Your task to perform on an android device: Clear the cart on newegg.com. Add "bose soundlink" to the cart on newegg.com Image 0: 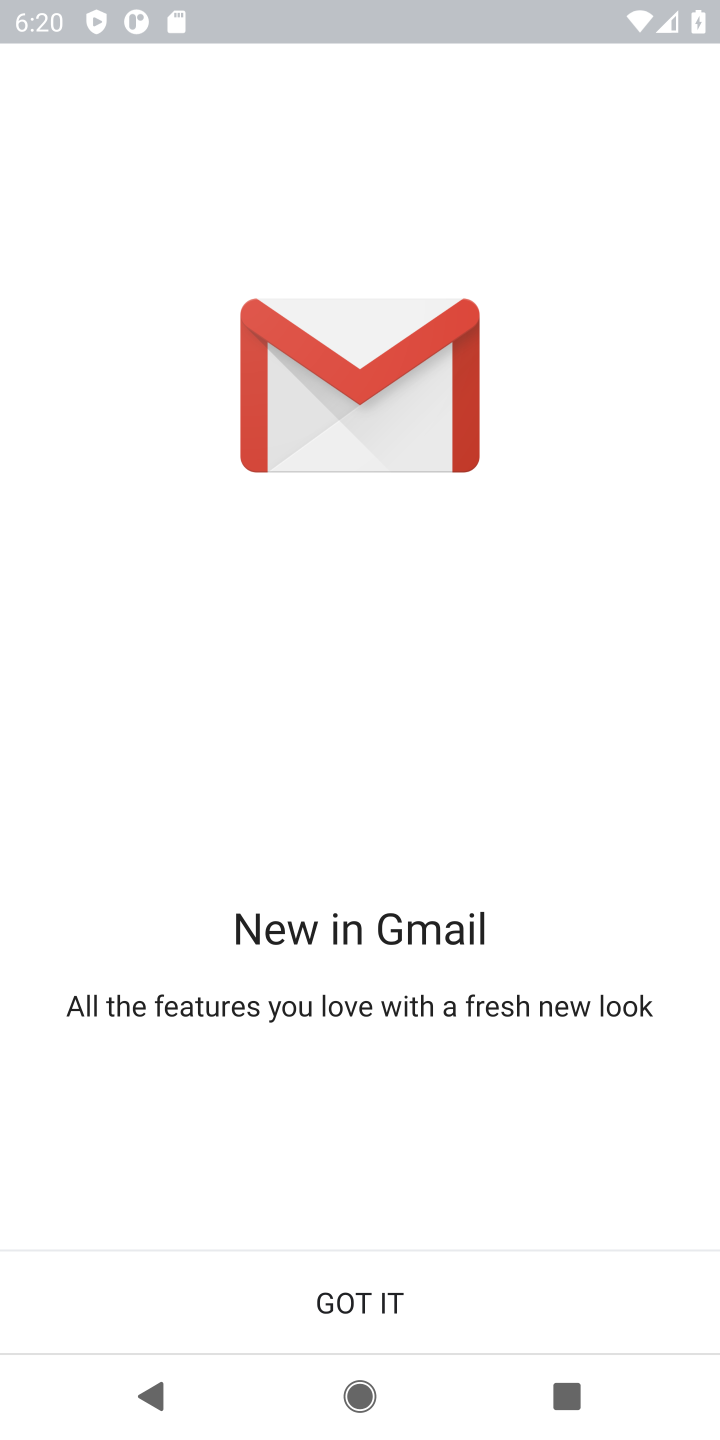
Step 0: press home button
Your task to perform on an android device: Clear the cart on newegg.com. Add "bose soundlink" to the cart on newegg.com Image 1: 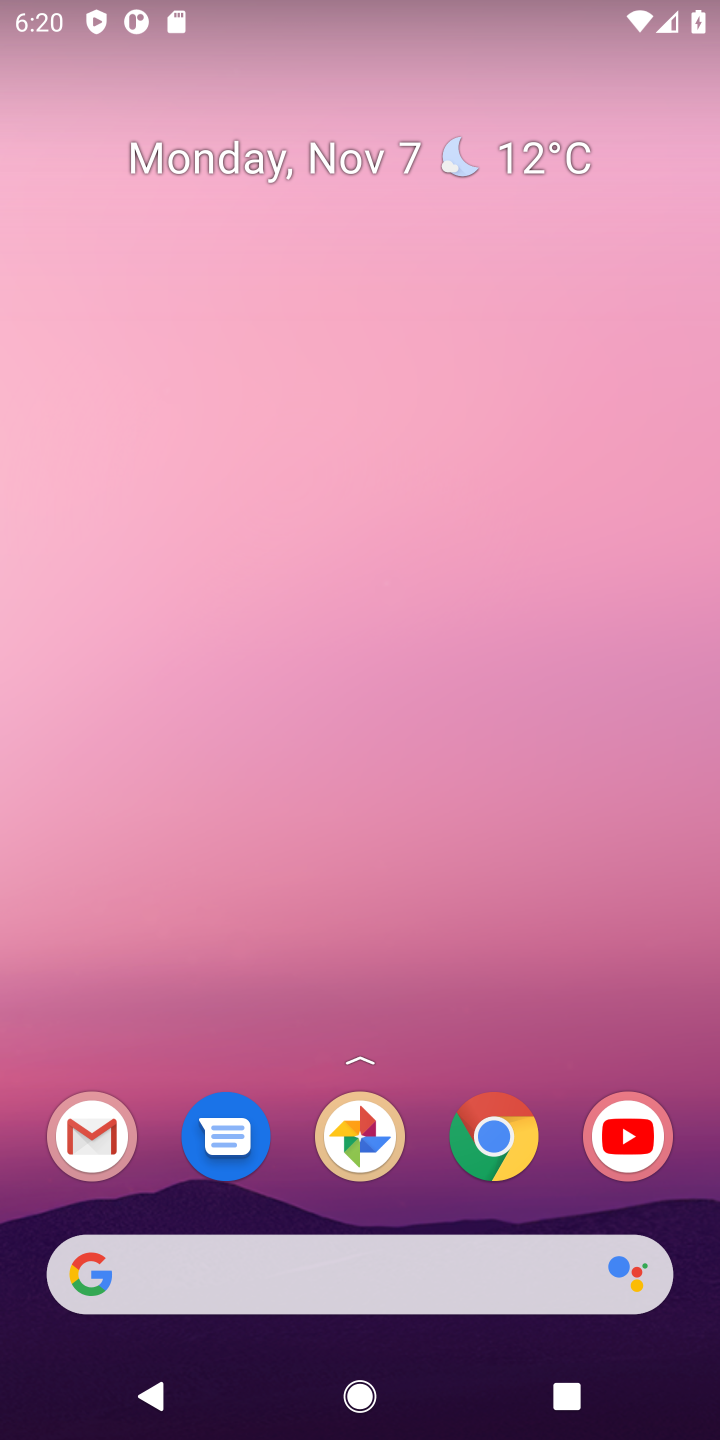
Step 1: click (82, 1269)
Your task to perform on an android device: Clear the cart on newegg.com. Add "bose soundlink" to the cart on newegg.com Image 2: 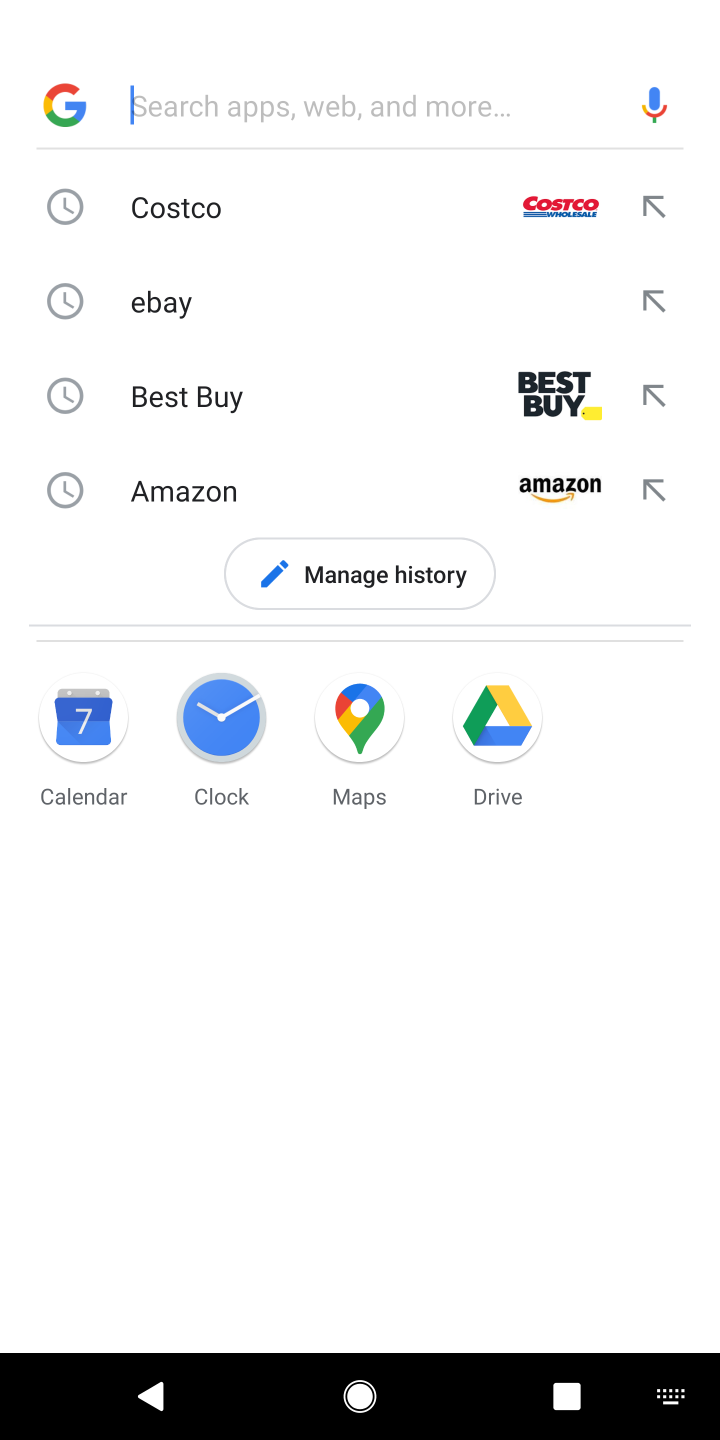
Step 2: type "newegg.com"
Your task to perform on an android device: Clear the cart on newegg.com. Add "bose soundlink" to the cart on newegg.com Image 3: 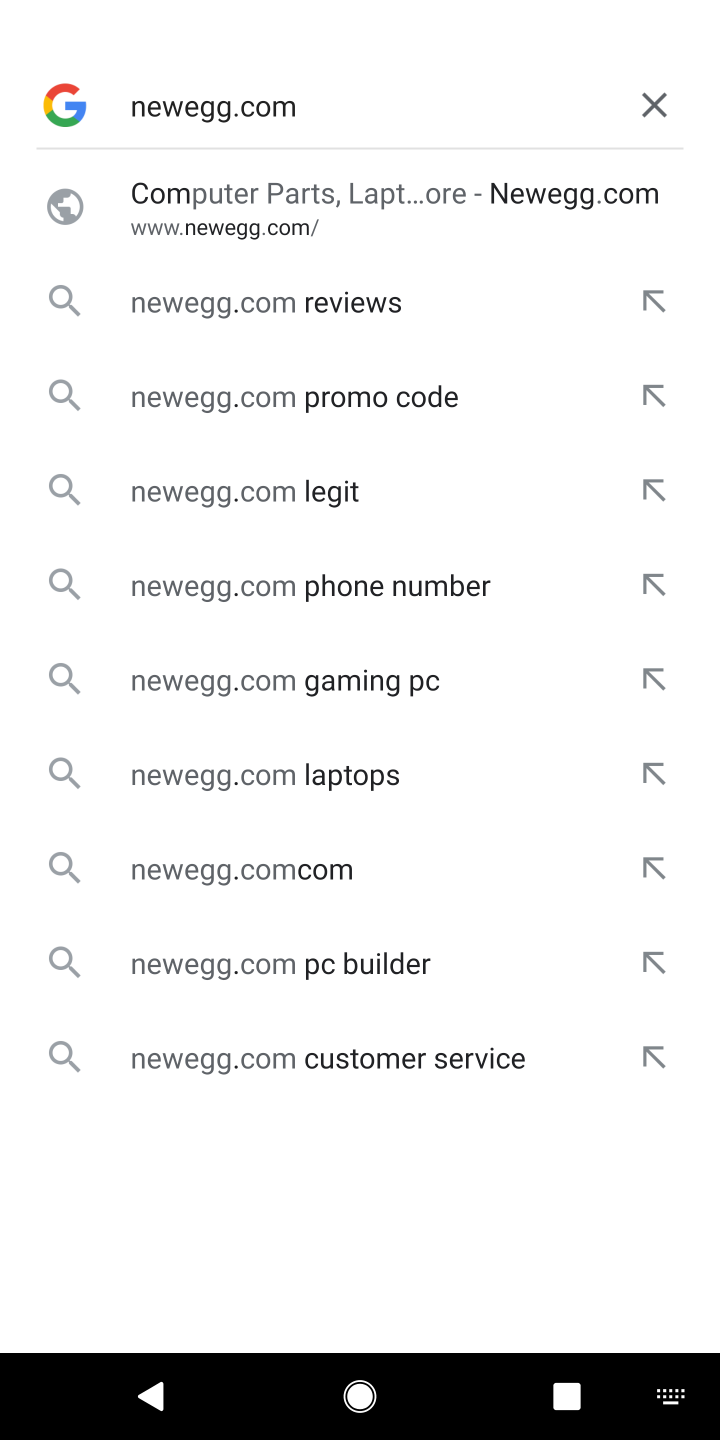
Step 3: click (207, 188)
Your task to perform on an android device: Clear the cart on newegg.com. Add "bose soundlink" to the cart on newegg.com Image 4: 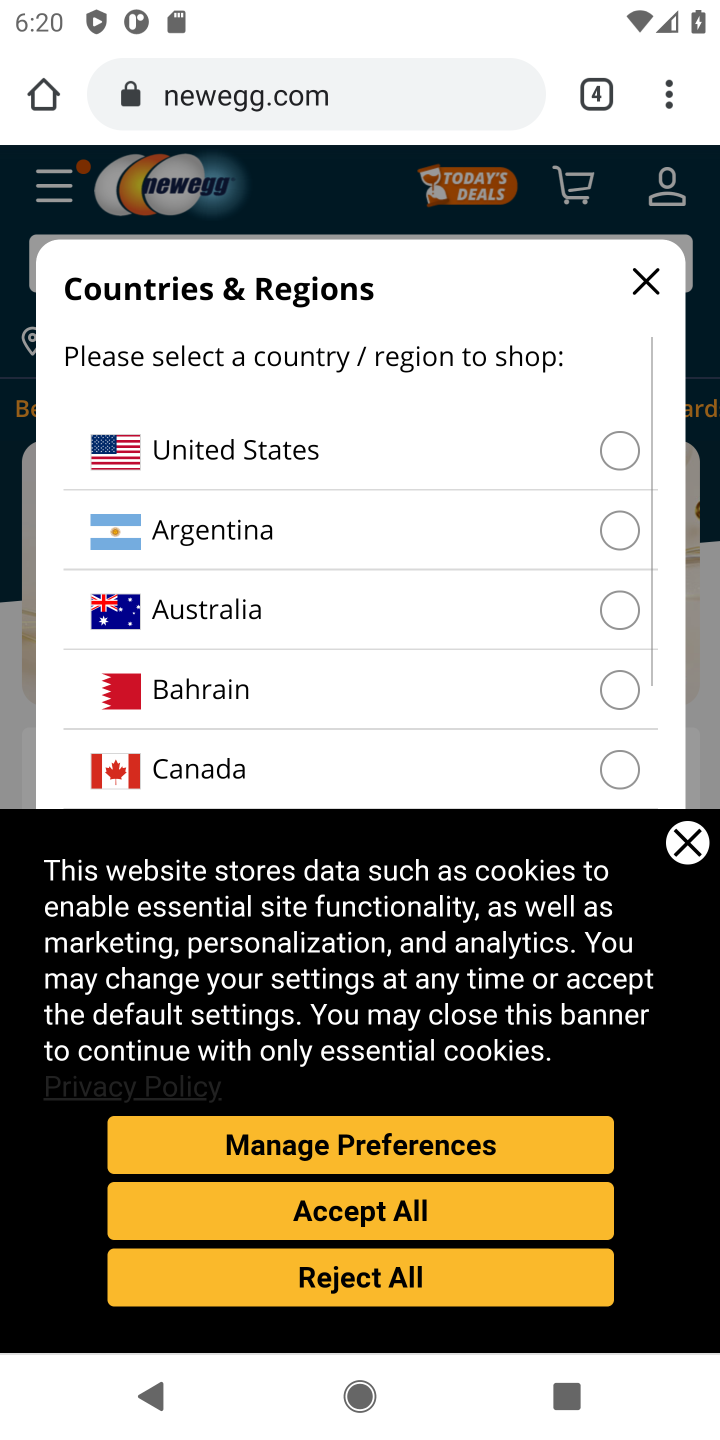
Step 4: click (404, 1201)
Your task to perform on an android device: Clear the cart on newegg.com. Add "bose soundlink" to the cart on newegg.com Image 5: 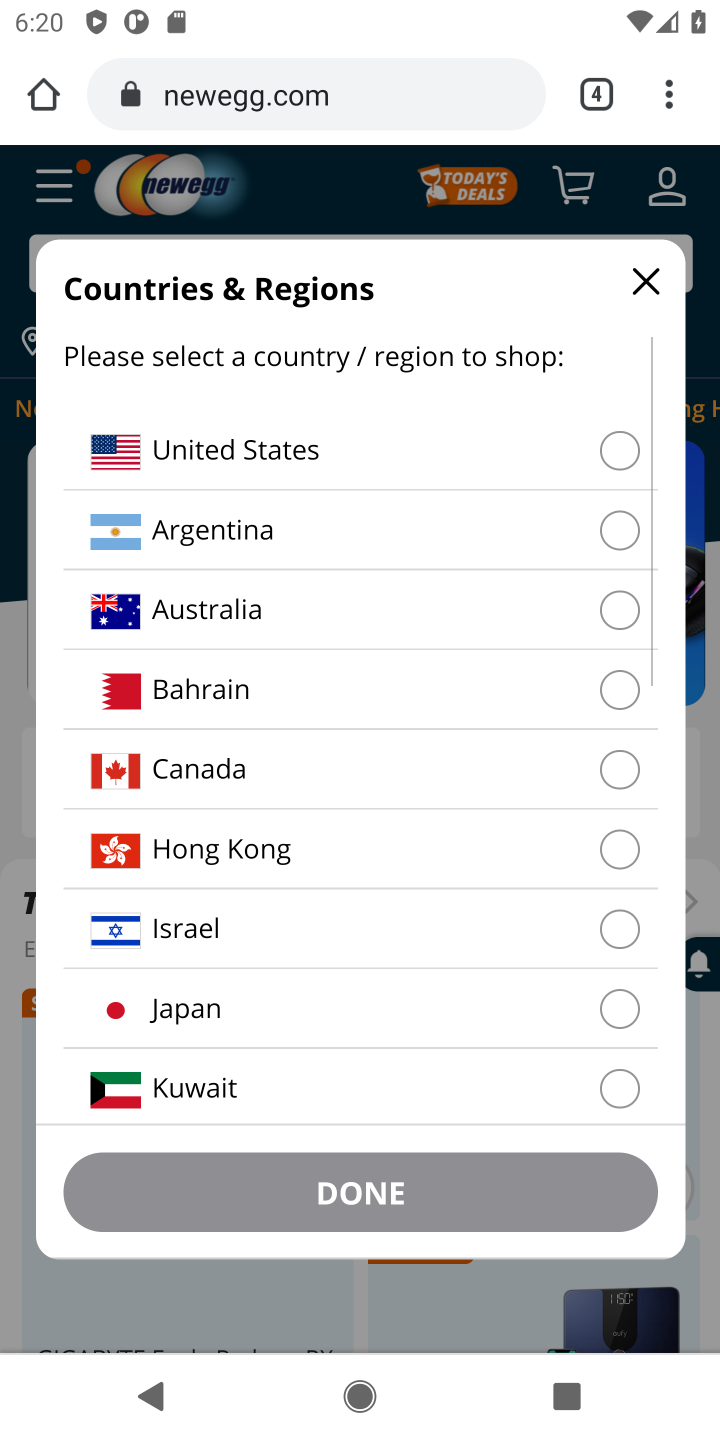
Step 5: click (638, 282)
Your task to perform on an android device: Clear the cart on newegg.com. Add "bose soundlink" to the cart on newegg.com Image 6: 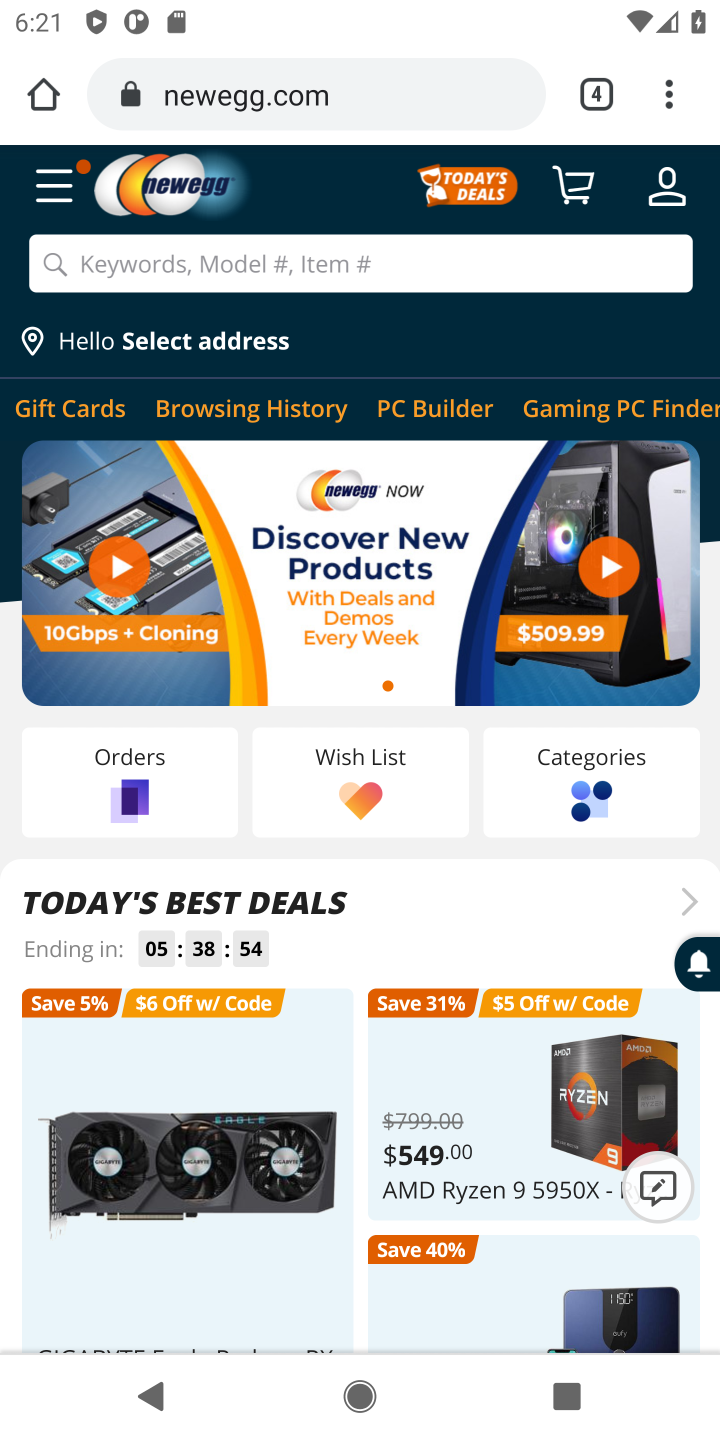
Step 6: click (231, 263)
Your task to perform on an android device: Clear the cart on newegg.com. Add "bose soundlink" to the cart on newegg.com Image 7: 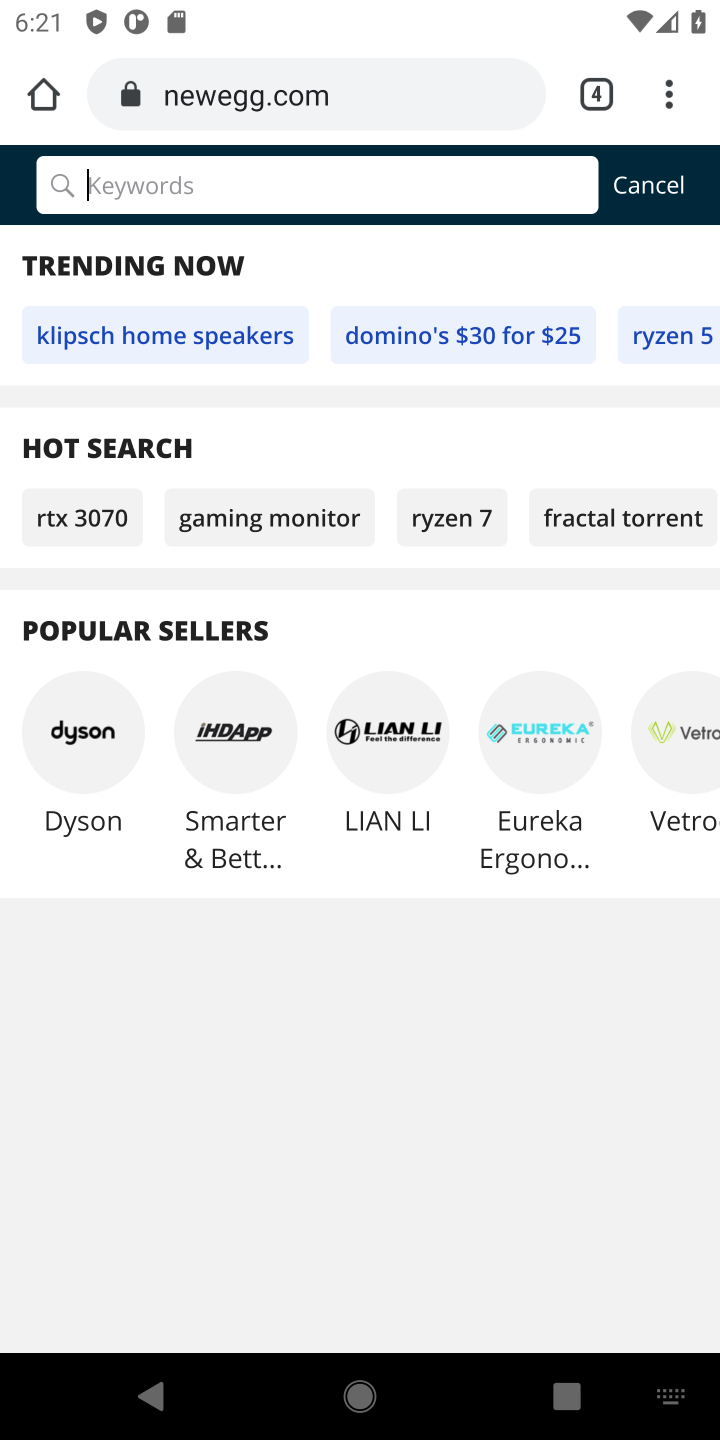
Step 7: type "bose soundlink"
Your task to perform on an android device: Clear the cart on newegg.com. Add "bose soundlink" to the cart on newegg.com Image 8: 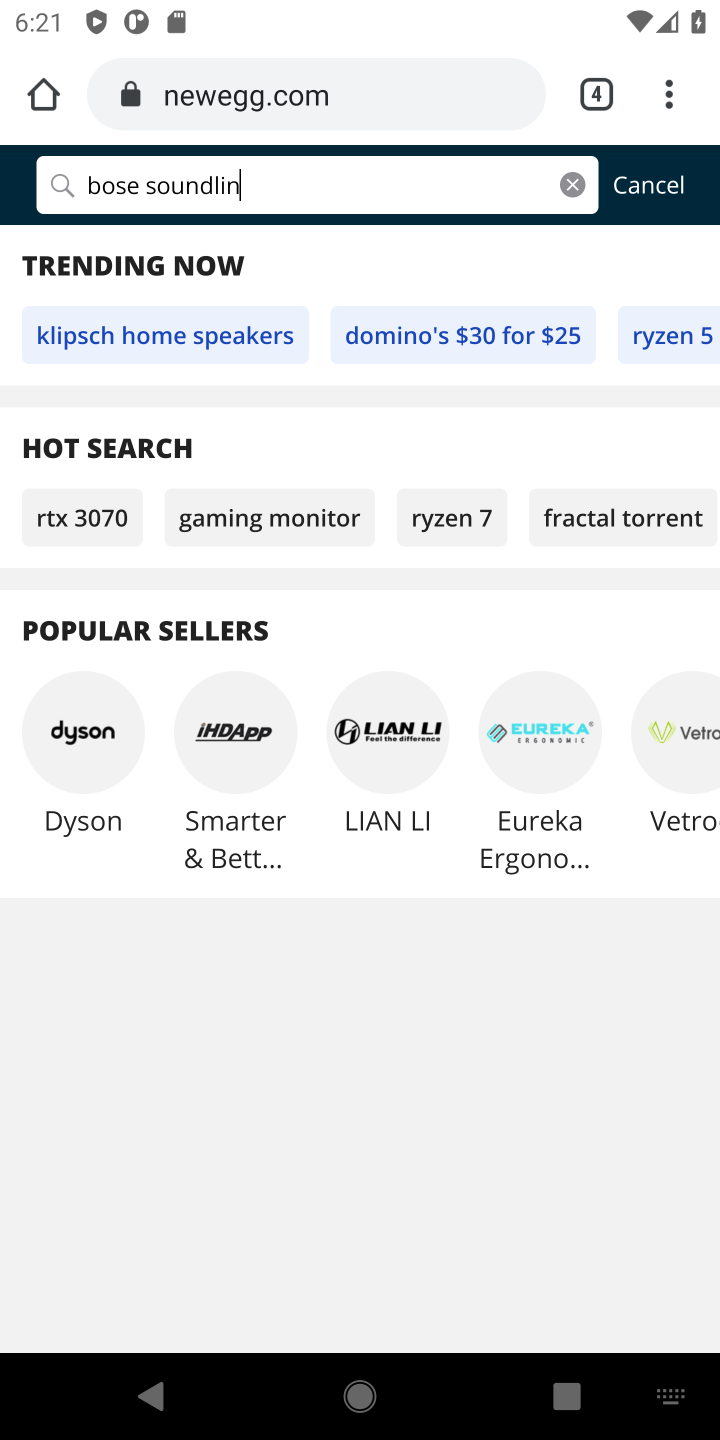
Step 8: type ""
Your task to perform on an android device: Clear the cart on newegg.com. Add "bose soundlink" to the cart on newegg.com Image 9: 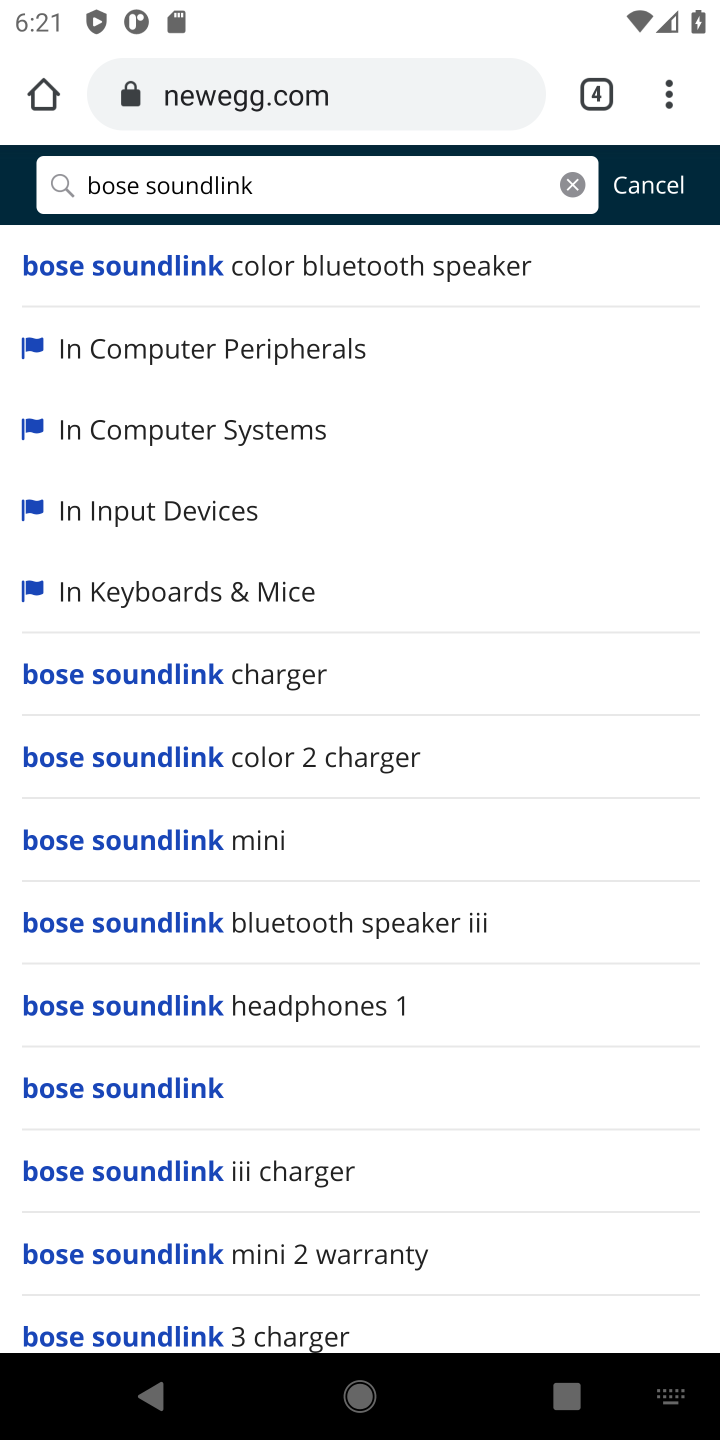
Step 9: click (121, 1090)
Your task to perform on an android device: Clear the cart on newegg.com. Add "bose soundlink" to the cart on newegg.com Image 10: 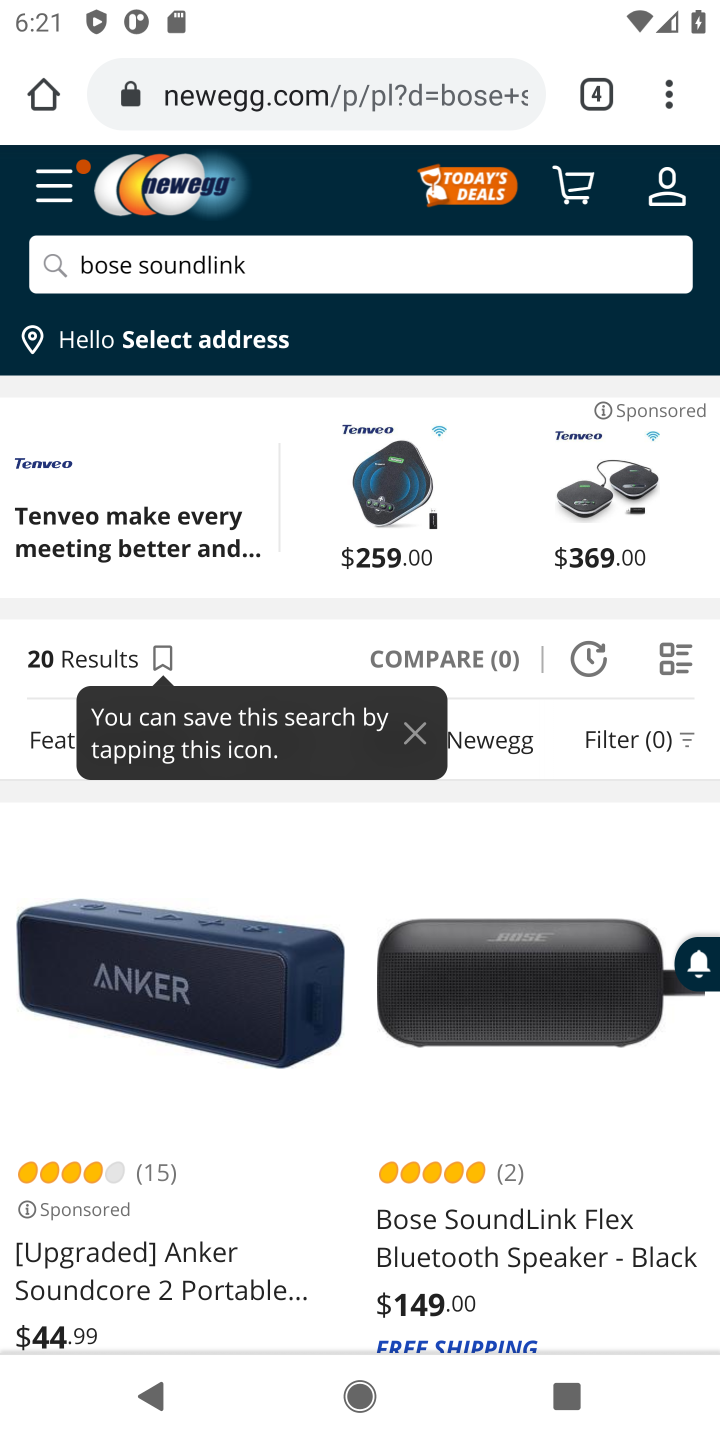
Step 10: click (414, 746)
Your task to perform on an android device: Clear the cart on newegg.com. Add "bose soundlink" to the cart on newegg.com Image 11: 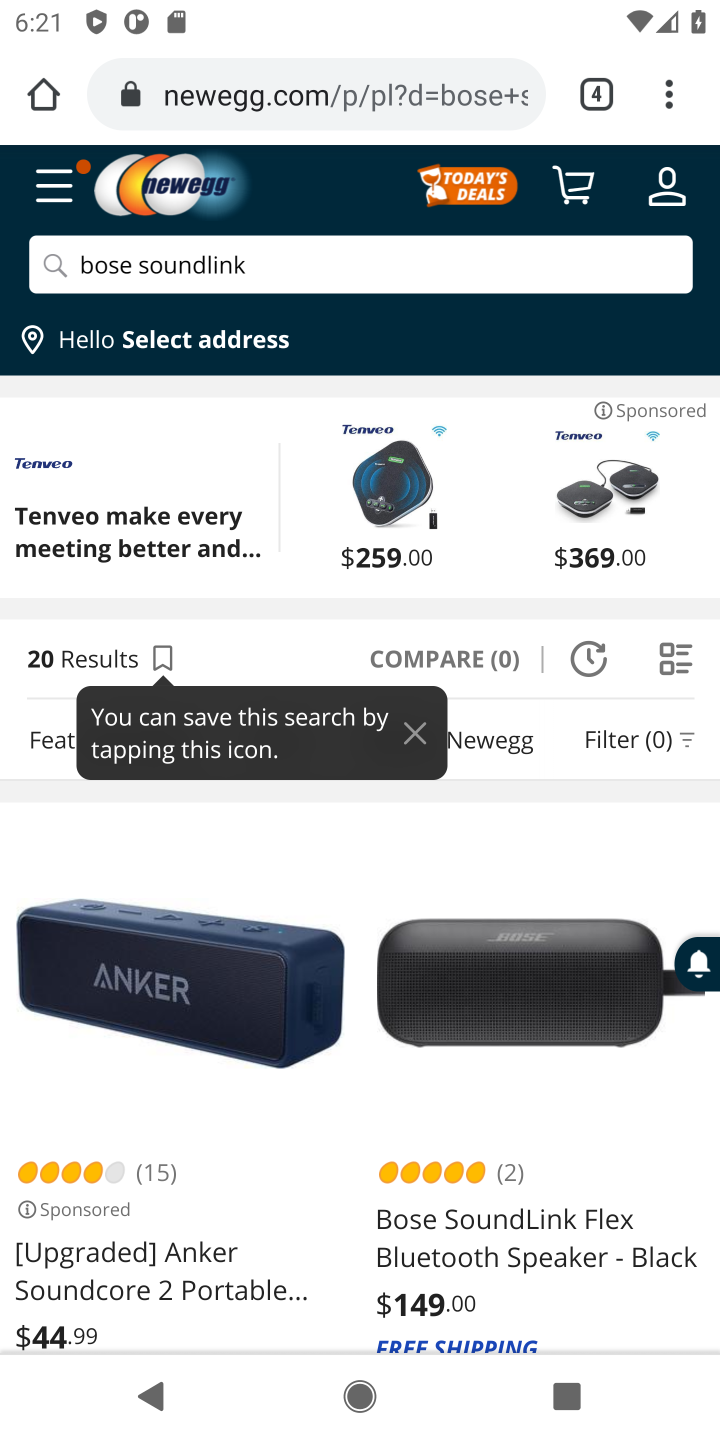
Step 11: click (414, 741)
Your task to perform on an android device: Clear the cart on newegg.com. Add "bose soundlink" to the cart on newegg.com Image 12: 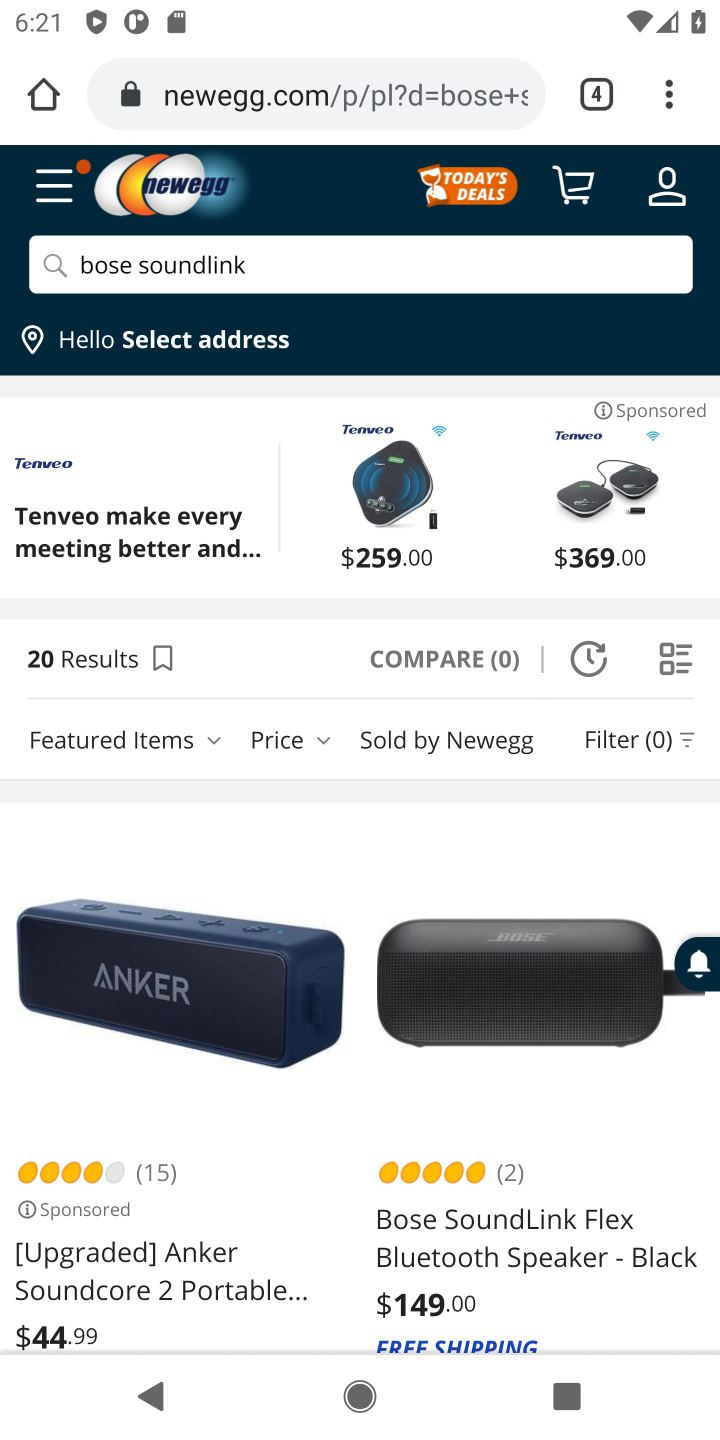
Step 12: drag from (183, 1083) to (192, 487)
Your task to perform on an android device: Clear the cart on newegg.com. Add "bose soundlink" to the cart on newegg.com Image 13: 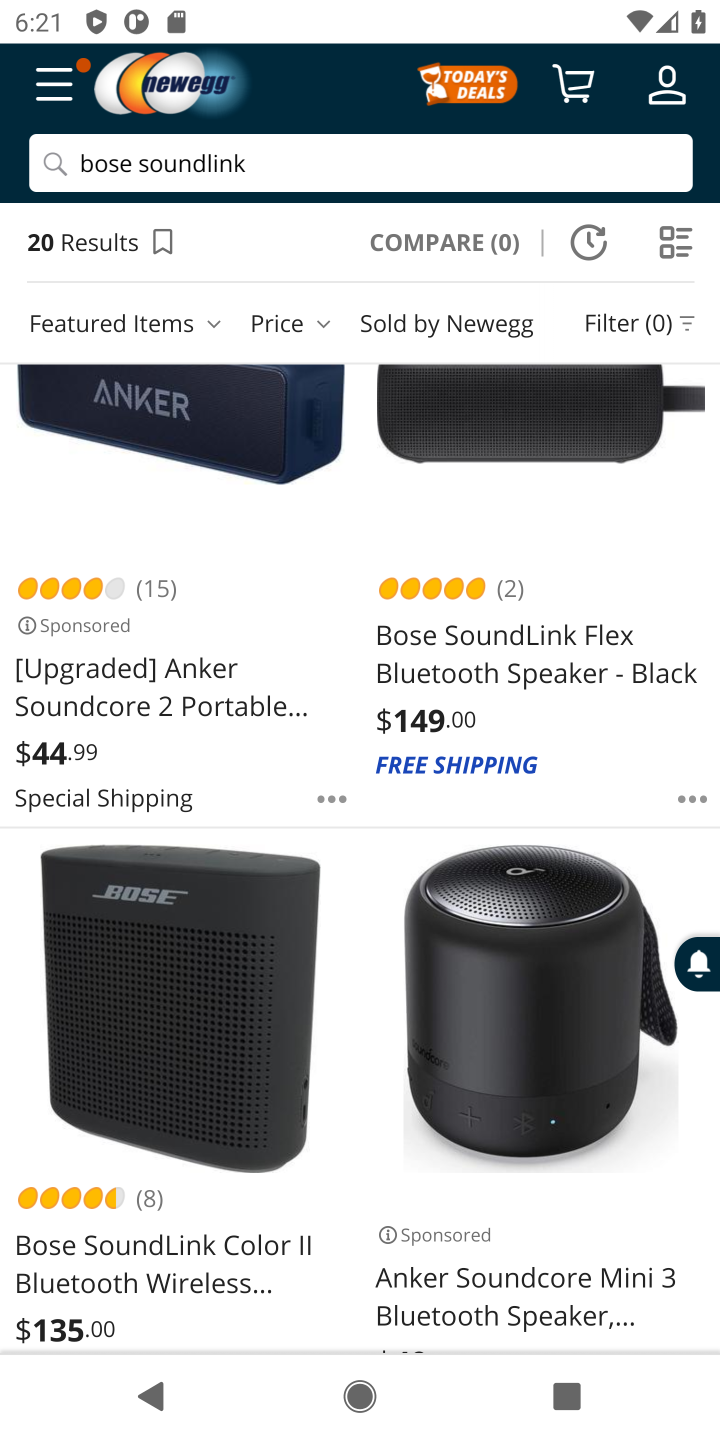
Step 13: click (144, 668)
Your task to perform on an android device: Clear the cart on newegg.com. Add "bose soundlink" to the cart on newegg.com Image 14: 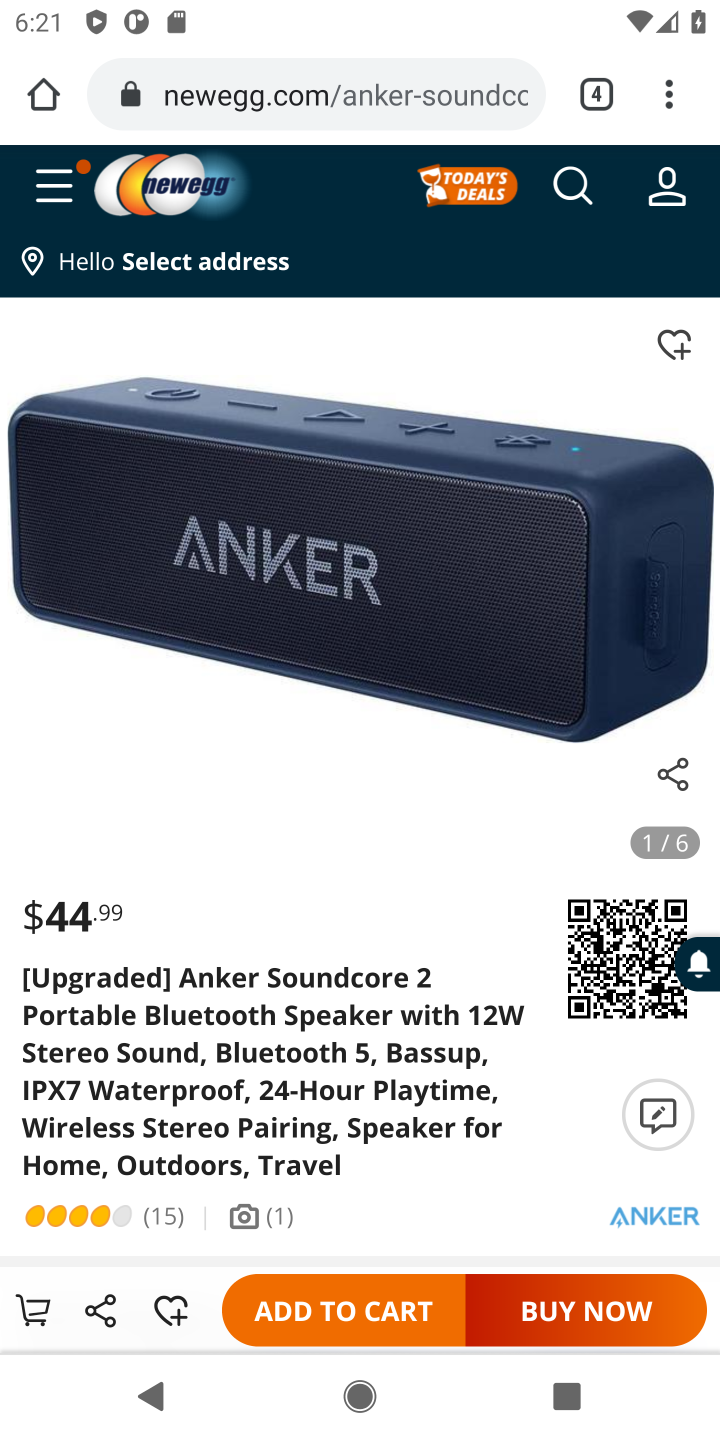
Step 14: click (299, 1304)
Your task to perform on an android device: Clear the cart on newegg.com. Add "bose soundlink" to the cart on newegg.com Image 15: 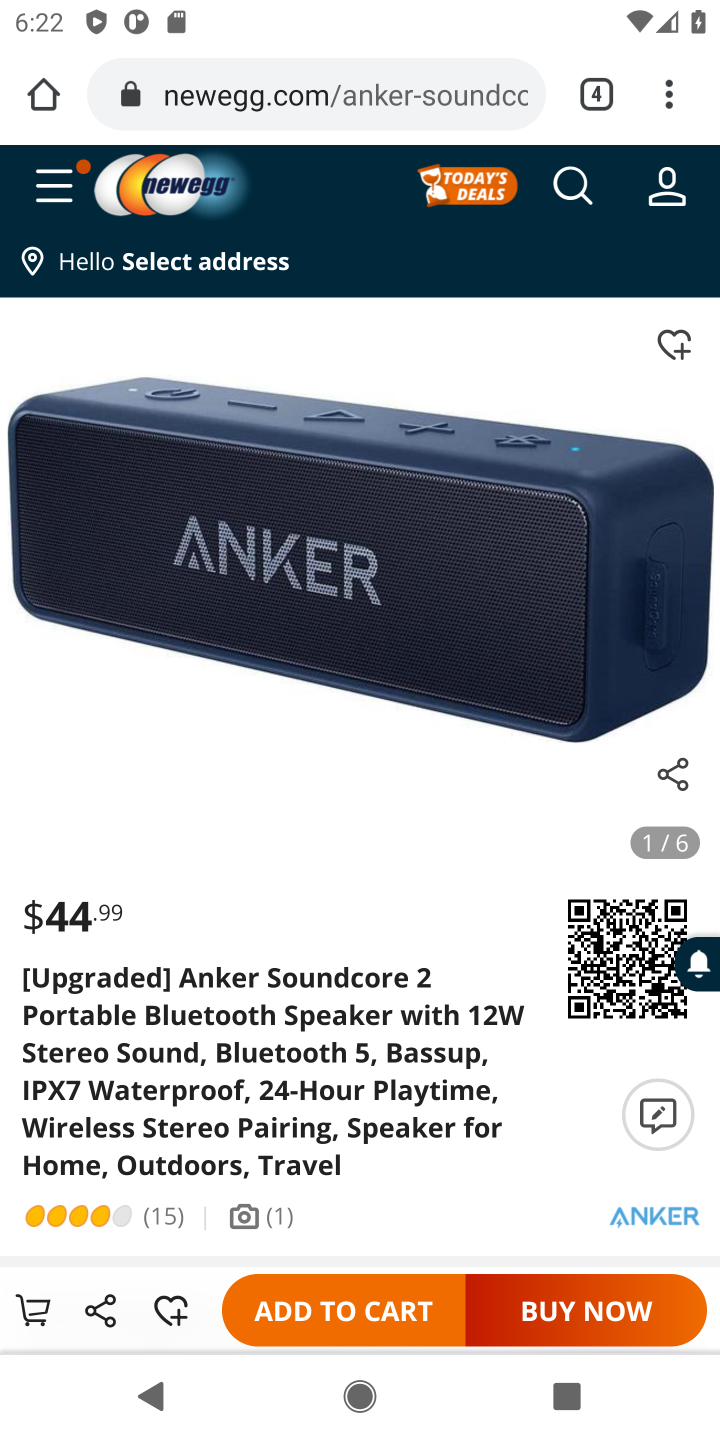
Step 15: drag from (445, 1094) to (463, 646)
Your task to perform on an android device: Clear the cart on newegg.com. Add "bose soundlink" to the cart on newegg.com Image 16: 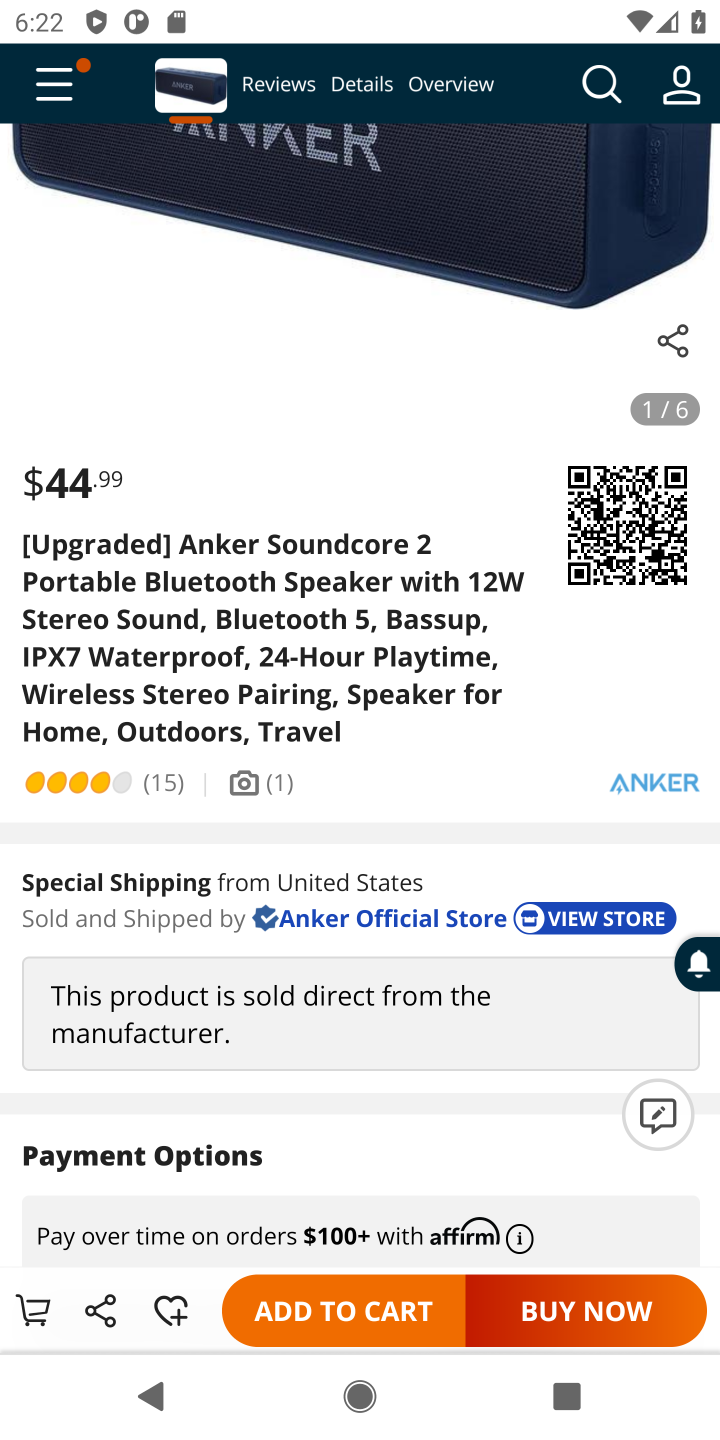
Step 16: drag from (481, 581) to (346, 1307)
Your task to perform on an android device: Clear the cart on newegg.com. Add "bose soundlink" to the cart on newegg.com Image 17: 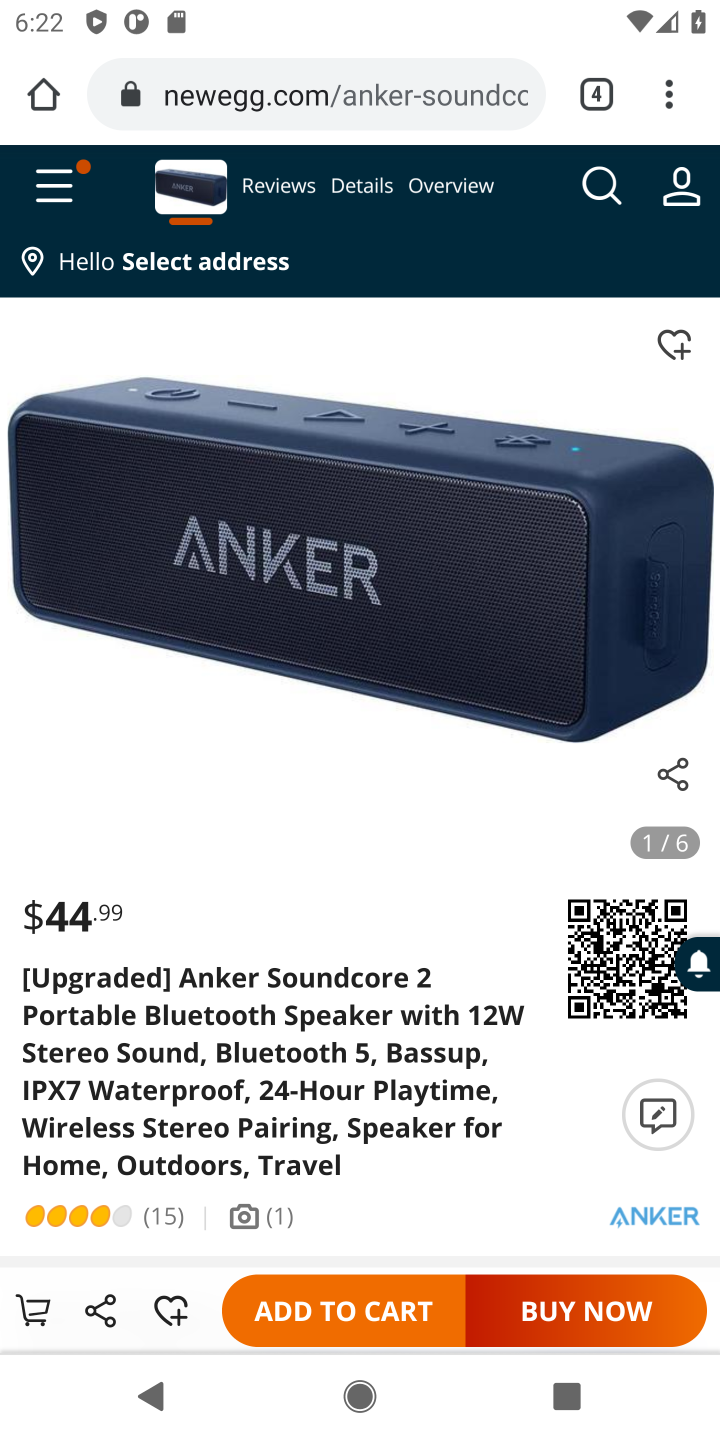
Step 17: drag from (235, 1314) to (549, 1328)
Your task to perform on an android device: Clear the cart on newegg.com. Add "bose soundlink" to the cart on newegg.com Image 18: 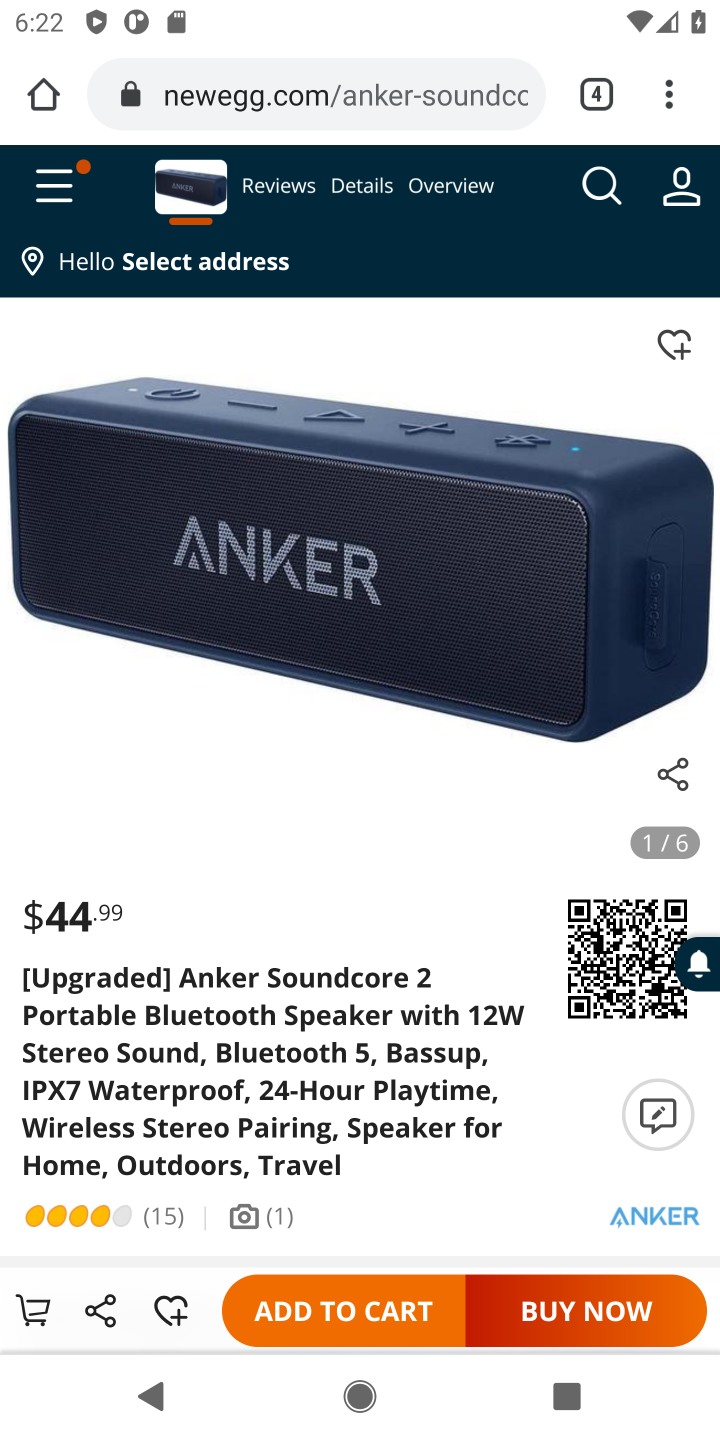
Step 18: drag from (415, 1172) to (352, 740)
Your task to perform on an android device: Clear the cart on newegg.com. Add "bose soundlink" to the cart on newegg.com Image 19: 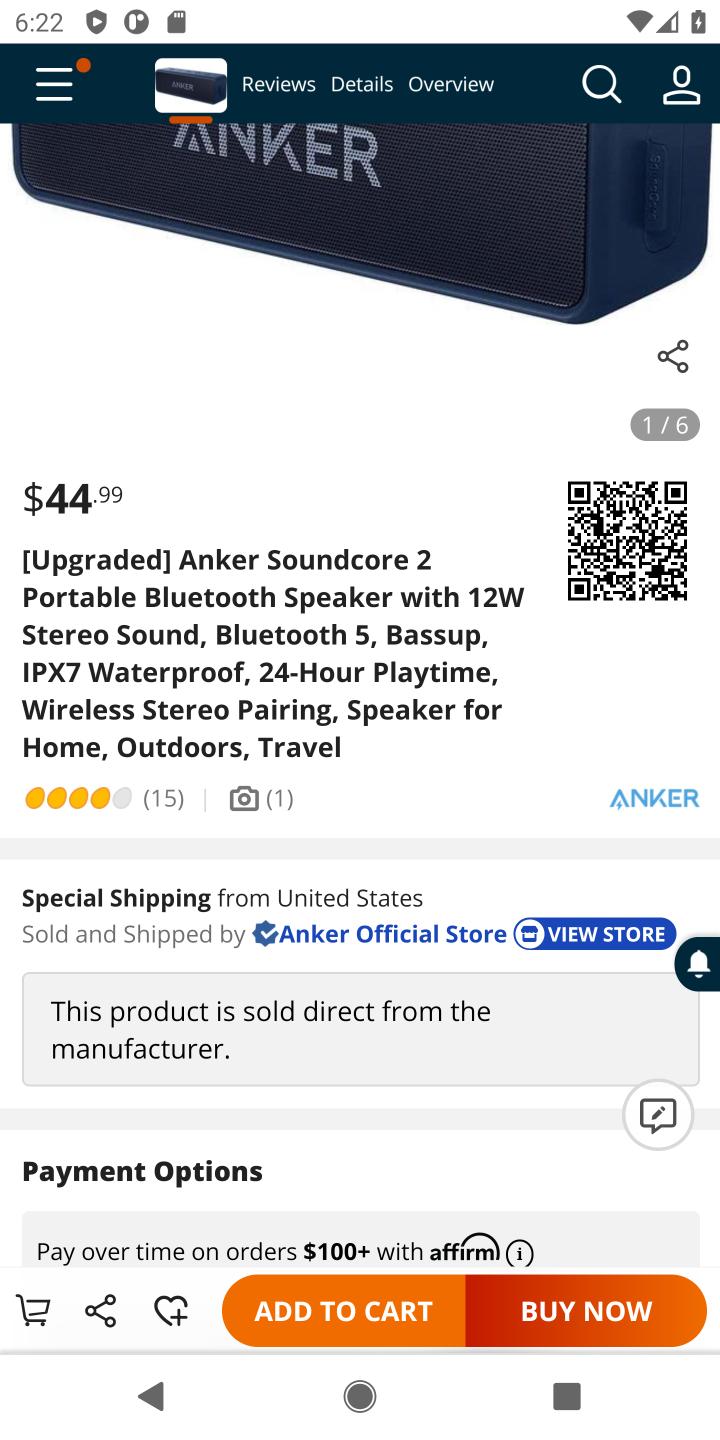
Step 19: click (331, 1312)
Your task to perform on an android device: Clear the cart on newegg.com. Add "bose soundlink" to the cart on newegg.com Image 20: 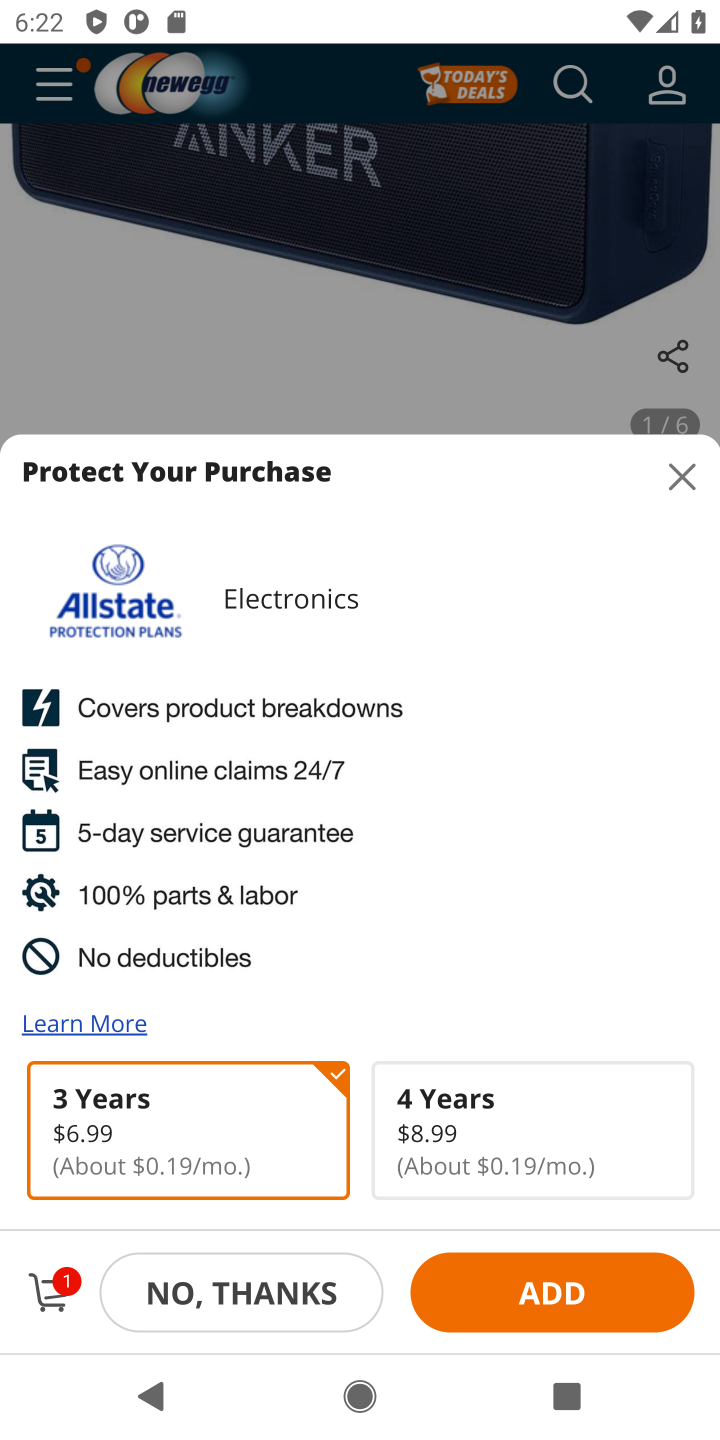
Step 20: task complete